Your task to perform on an android device: Clear the cart on bestbuy.com. Search for razer blade on bestbuy.com, select the first entry, add it to the cart, then select checkout. Image 0: 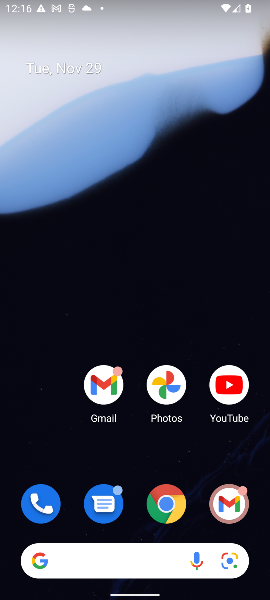
Step 0: click (162, 513)
Your task to perform on an android device: Clear the cart on bestbuy.com. Search for razer blade on bestbuy.com, select the first entry, add it to the cart, then select checkout. Image 1: 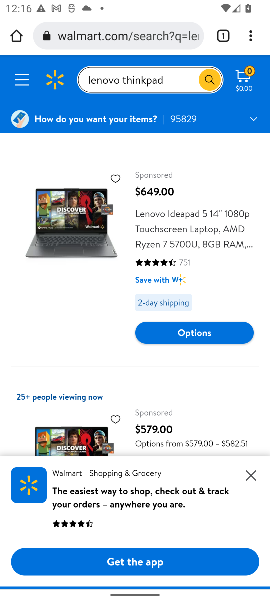
Step 1: click (121, 27)
Your task to perform on an android device: Clear the cart on bestbuy.com. Search for razer blade on bestbuy.com, select the first entry, add it to the cart, then select checkout. Image 2: 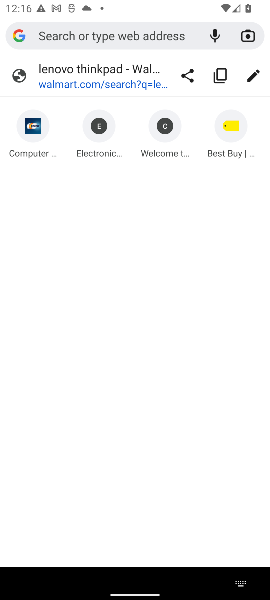
Step 2: click (225, 130)
Your task to perform on an android device: Clear the cart on bestbuy.com. Search for razer blade on bestbuy.com, select the first entry, add it to the cart, then select checkout. Image 3: 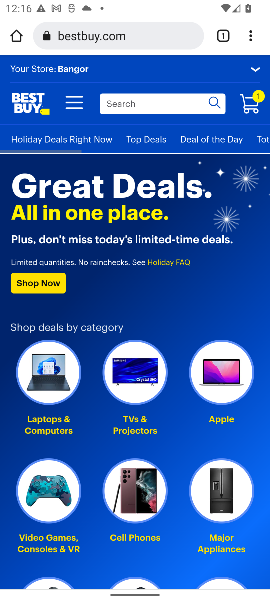
Step 3: click (245, 105)
Your task to perform on an android device: Clear the cart on bestbuy.com. Search for razer blade on bestbuy.com, select the first entry, add it to the cart, then select checkout. Image 4: 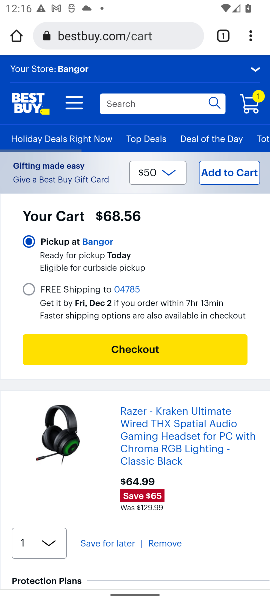
Step 4: click (173, 542)
Your task to perform on an android device: Clear the cart on bestbuy.com. Search for razer blade on bestbuy.com, select the first entry, add it to the cart, then select checkout. Image 5: 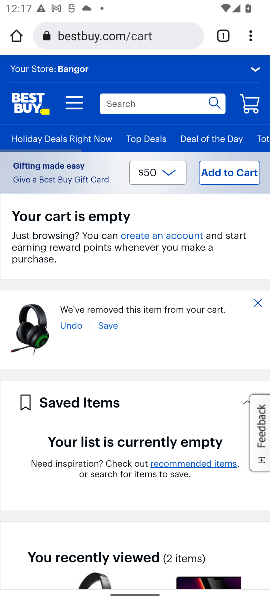
Step 5: click (146, 100)
Your task to perform on an android device: Clear the cart on bestbuy.com. Search for razer blade on bestbuy.com, select the first entry, add it to the cart, then select checkout. Image 6: 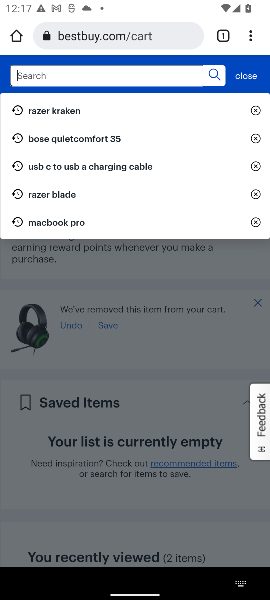
Step 6: type "razer blade"
Your task to perform on an android device: Clear the cart on bestbuy.com. Search for razer blade on bestbuy.com, select the first entry, add it to the cart, then select checkout. Image 7: 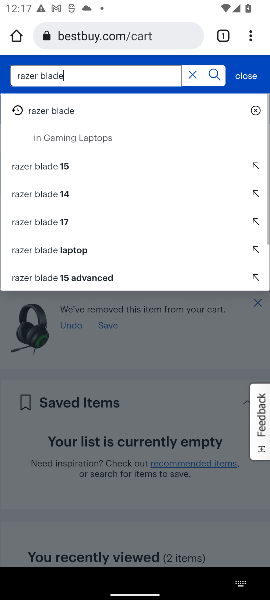
Step 7: click (56, 113)
Your task to perform on an android device: Clear the cart on bestbuy.com. Search for razer blade on bestbuy.com, select the first entry, add it to the cart, then select checkout. Image 8: 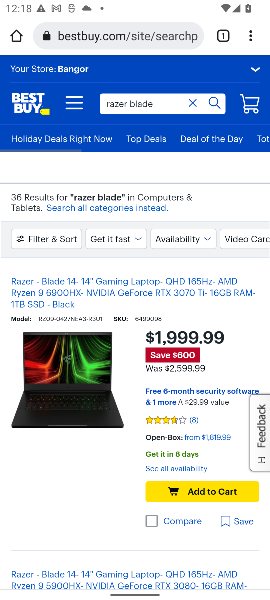
Step 8: click (187, 490)
Your task to perform on an android device: Clear the cart on bestbuy.com. Search for razer blade on bestbuy.com, select the first entry, add it to the cart, then select checkout. Image 9: 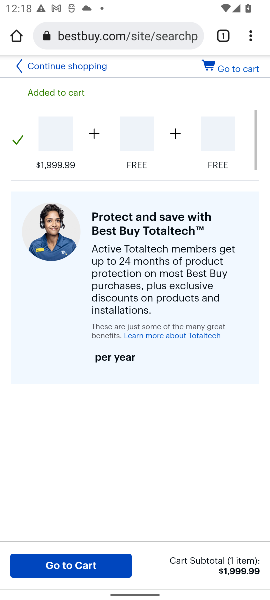
Step 9: click (221, 69)
Your task to perform on an android device: Clear the cart on bestbuy.com. Search for razer blade on bestbuy.com, select the first entry, add it to the cart, then select checkout. Image 10: 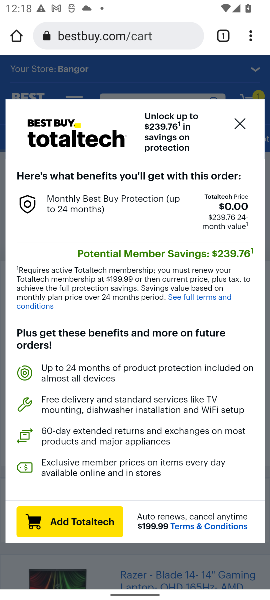
Step 10: click (241, 125)
Your task to perform on an android device: Clear the cart on bestbuy.com. Search for razer blade on bestbuy.com, select the first entry, add it to the cart, then select checkout. Image 11: 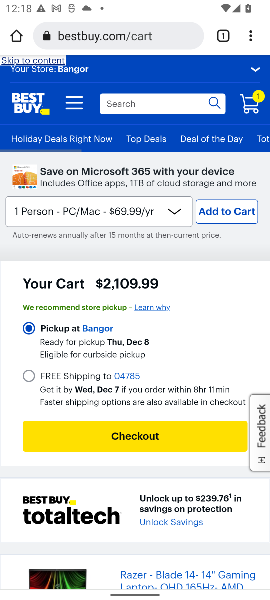
Step 11: click (119, 439)
Your task to perform on an android device: Clear the cart on bestbuy.com. Search for razer blade on bestbuy.com, select the first entry, add it to the cart, then select checkout. Image 12: 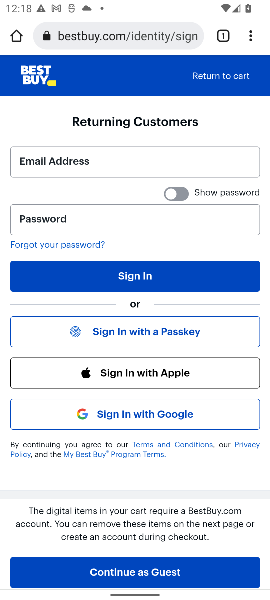
Step 12: task complete